Your task to perform on an android device: stop showing notifications on the lock screen Image 0: 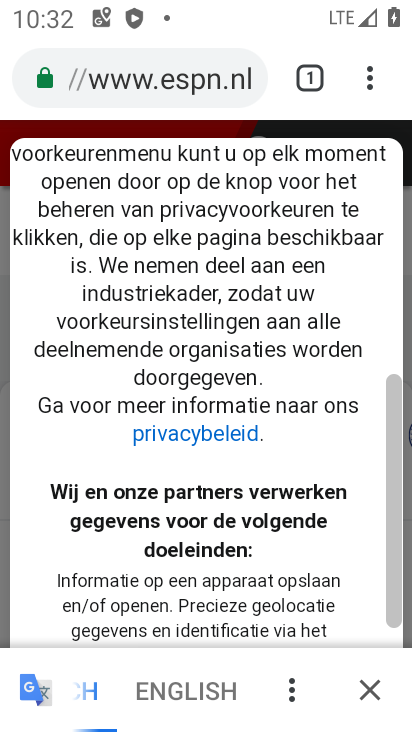
Step 0: press home button
Your task to perform on an android device: stop showing notifications on the lock screen Image 1: 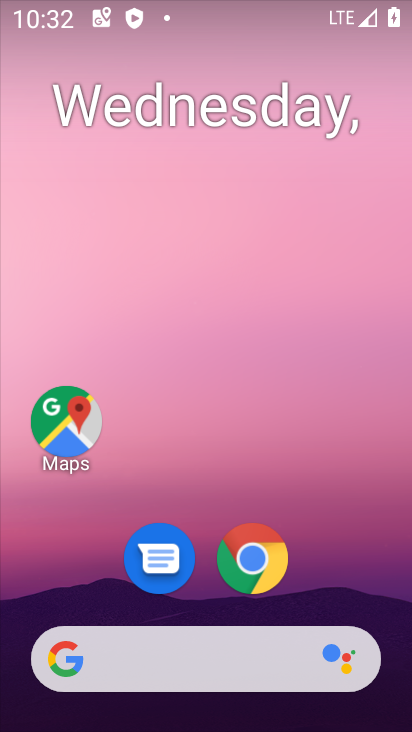
Step 1: drag from (41, 480) to (249, 125)
Your task to perform on an android device: stop showing notifications on the lock screen Image 2: 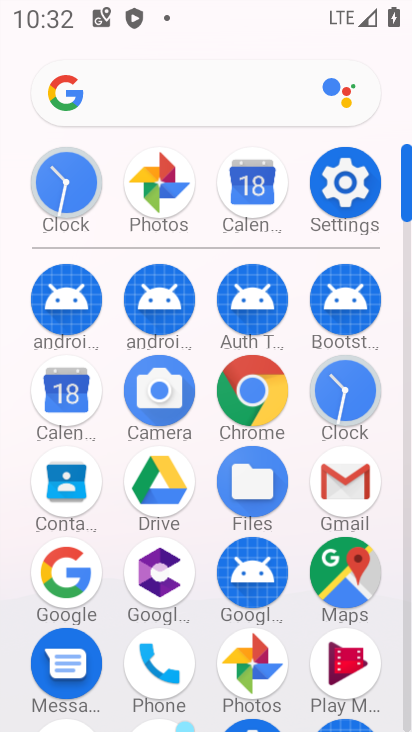
Step 2: click (371, 193)
Your task to perform on an android device: stop showing notifications on the lock screen Image 3: 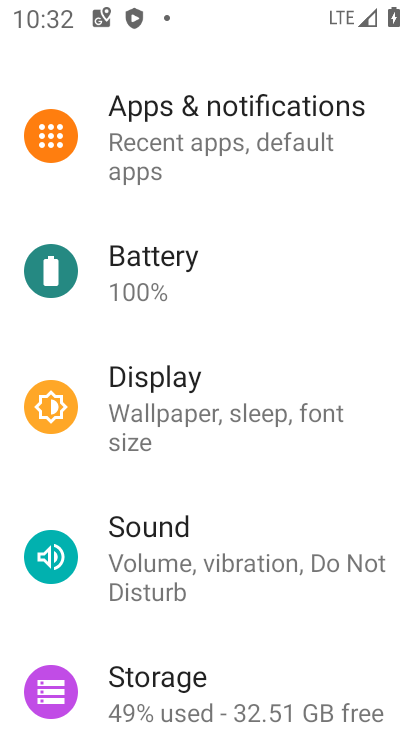
Step 3: click (163, 154)
Your task to perform on an android device: stop showing notifications on the lock screen Image 4: 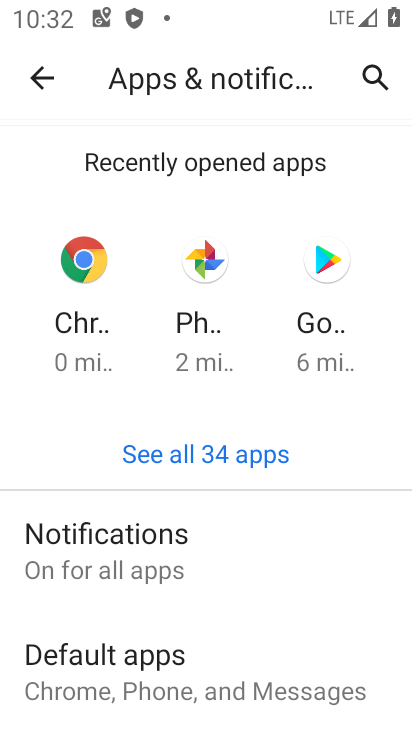
Step 4: click (175, 566)
Your task to perform on an android device: stop showing notifications on the lock screen Image 5: 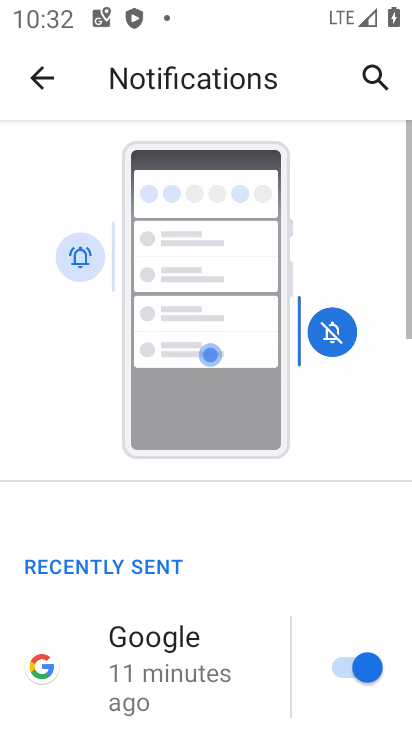
Step 5: drag from (36, 509) to (276, 77)
Your task to perform on an android device: stop showing notifications on the lock screen Image 6: 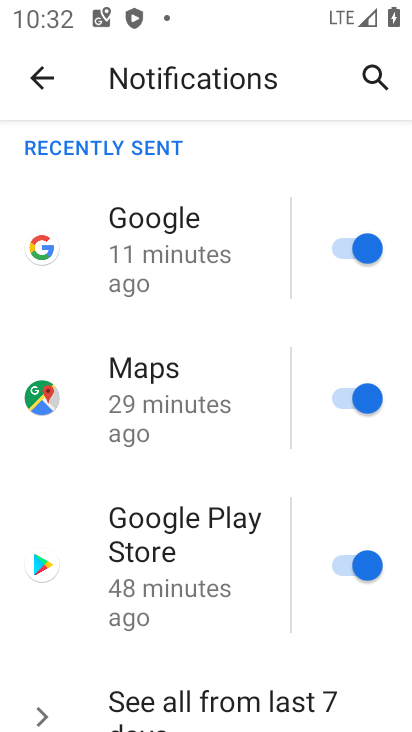
Step 6: drag from (49, 598) to (290, 196)
Your task to perform on an android device: stop showing notifications on the lock screen Image 7: 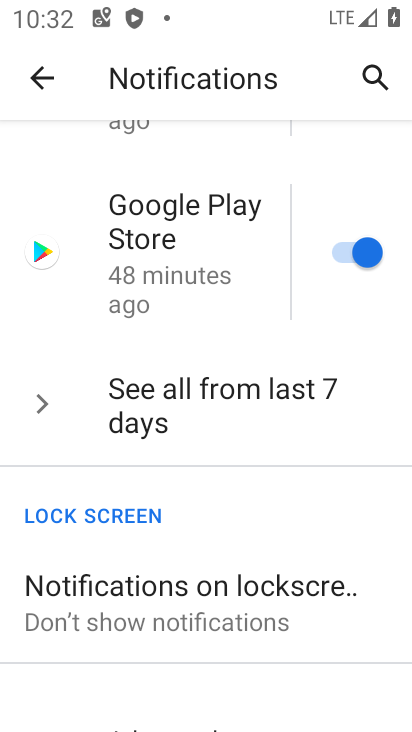
Step 7: click (115, 604)
Your task to perform on an android device: stop showing notifications on the lock screen Image 8: 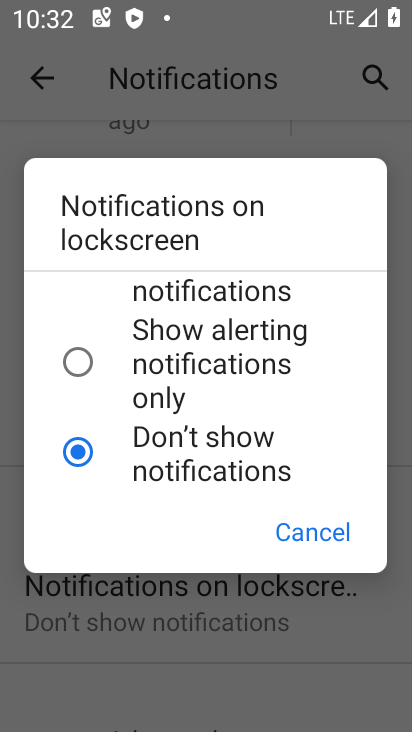
Step 8: task complete